Your task to perform on an android device: Open the map Image 0: 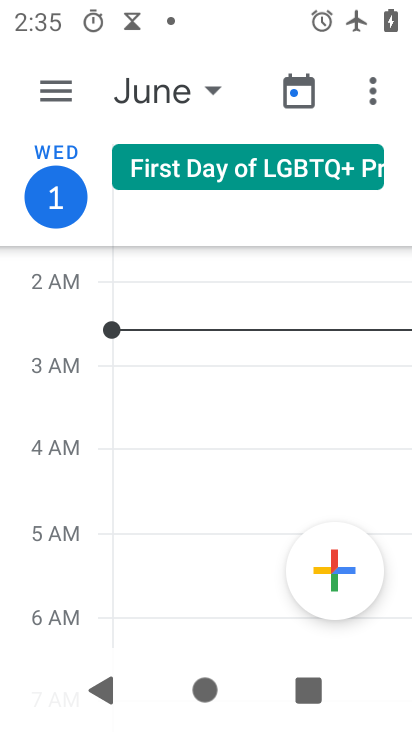
Step 0: press home button
Your task to perform on an android device: Open the map Image 1: 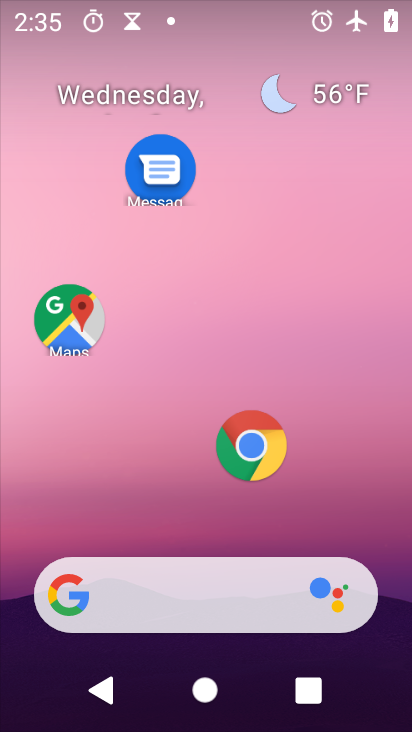
Step 1: click (71, 521)
Your task to perform on an android device: Open the map Image 2: 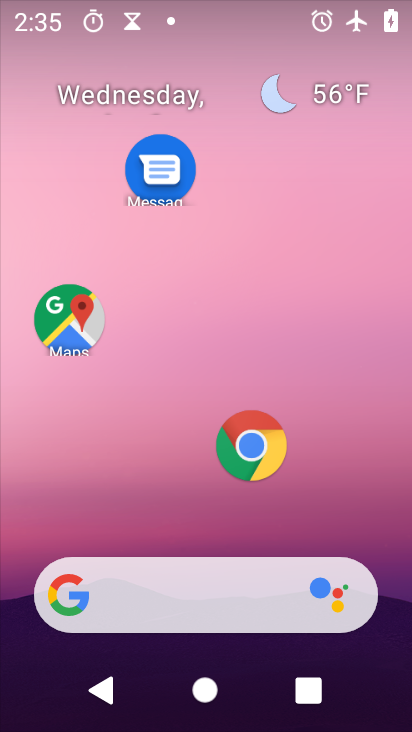
Step 2: drag from (134, 520) to (264, 113)
Your task to perform on an android device: Open the map Image 3: 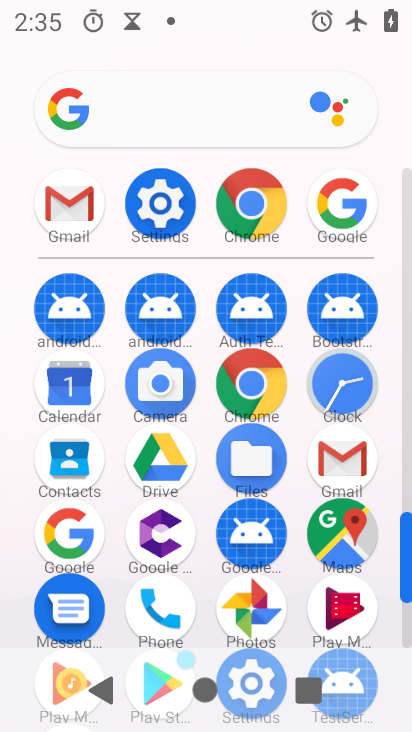
Step 3: drag from (205, 266) to (226, 38)
Your task to perform on an android device: Open the map Image 4: 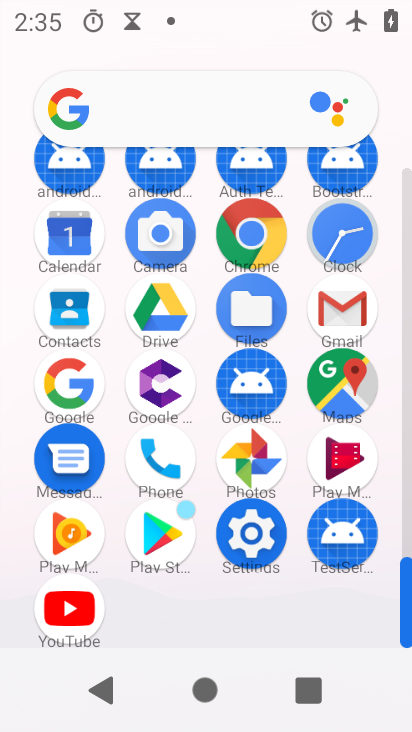
Step 4: click (334, 387)
Your task to perform on an android device: Open the map Image 5: 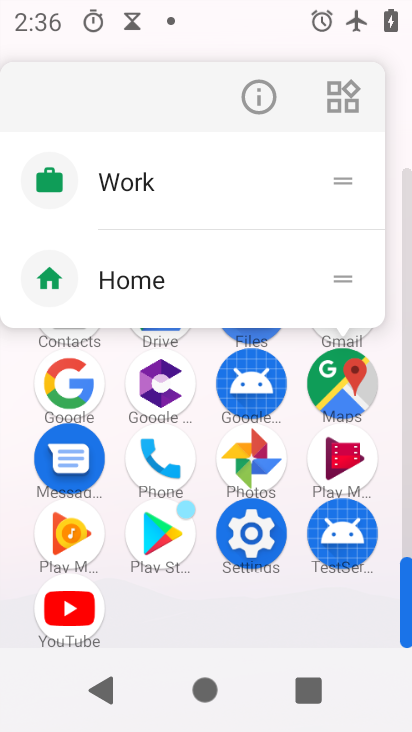
Step 5: click (358, 400)
Your task to perform on an android device: Open the map Image 6: 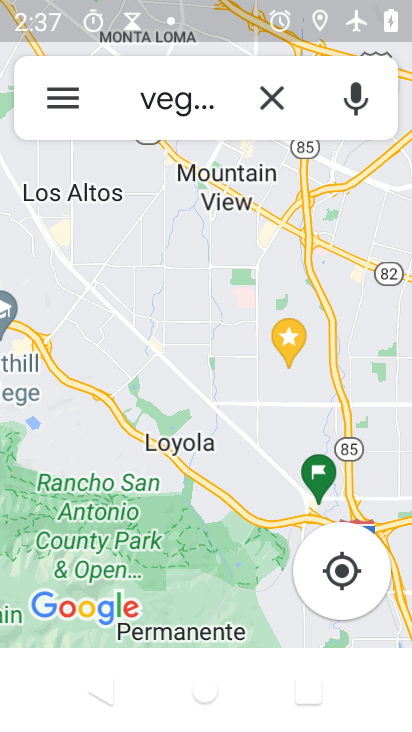
Step 6: task complete